Your task to perform on an android device: Open calendar and show me the first week of next month Image 0: 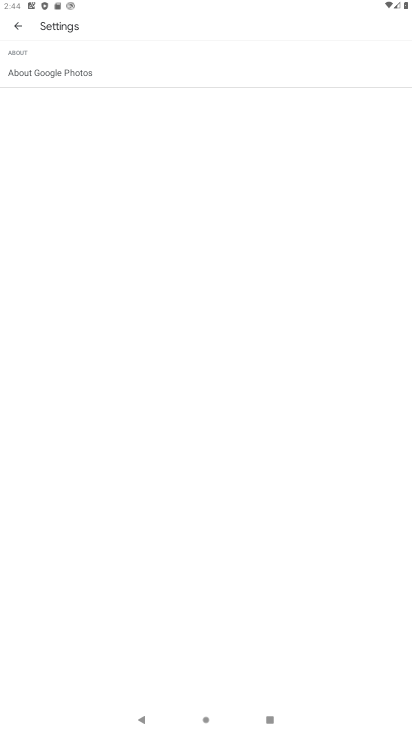
Step 0: press back button
Your task to perform on an android device: Open calendar and show me the first week of next month Image 1: 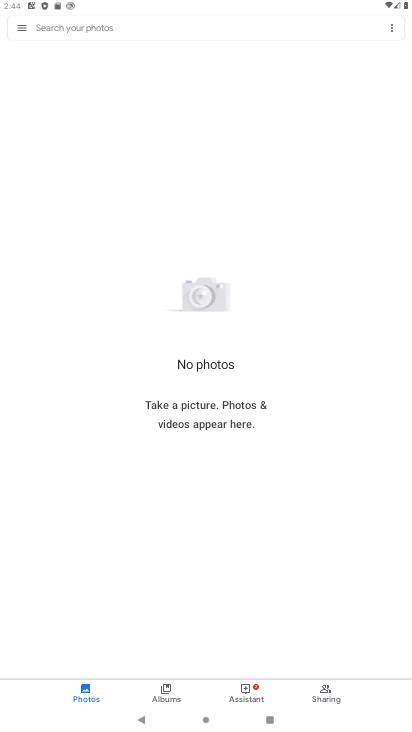
Step 1: press home button
Your task to perform on an android device: Open calendar and show me the first week of next month Image 2: 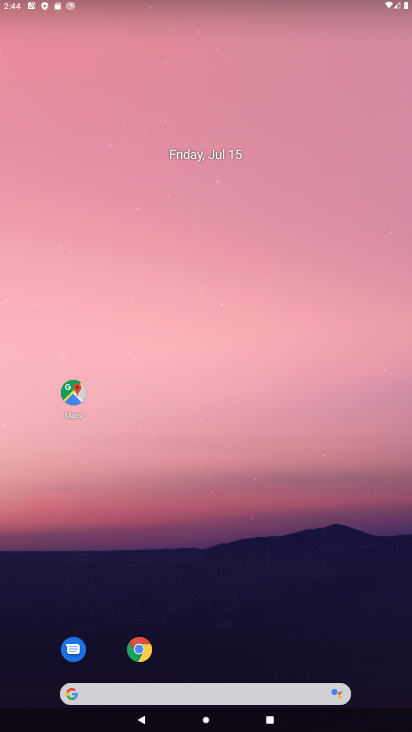
Step 2: drag from (185, 648) to (223, 157)
Your task to perform on an android device: Open calendar and show me the first week of next month Image 3: 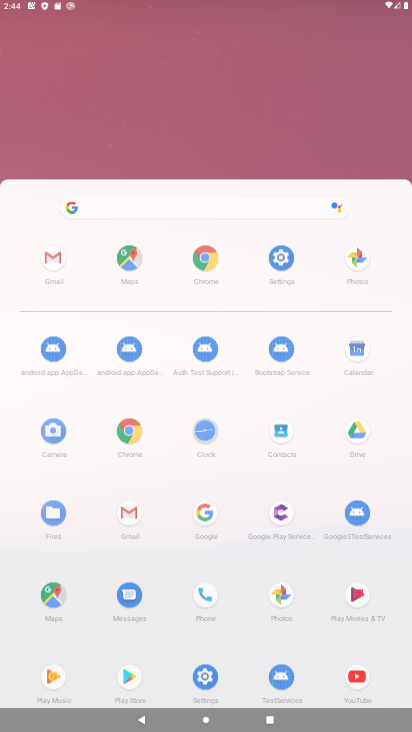
Step 3: drag from (253, 663) to (203, 268)
Your task to perform on an android device: Open calendar and show me the first week of next month Image 4: 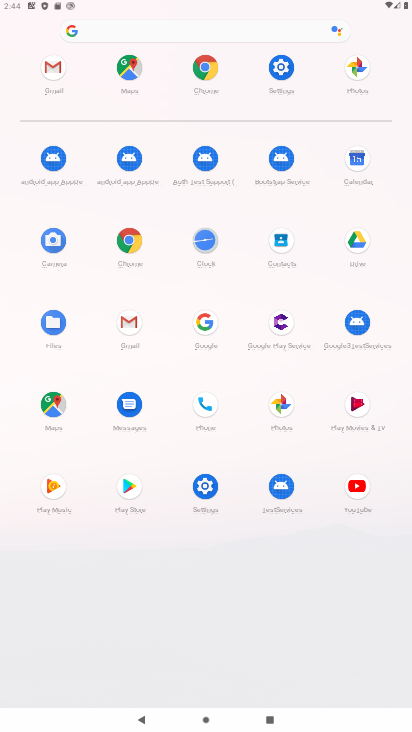
Step 4: drag from (205, 626) to (194, 251)
Your task to perform on an android device: Open calendar and show me the first week of next month Image 5: 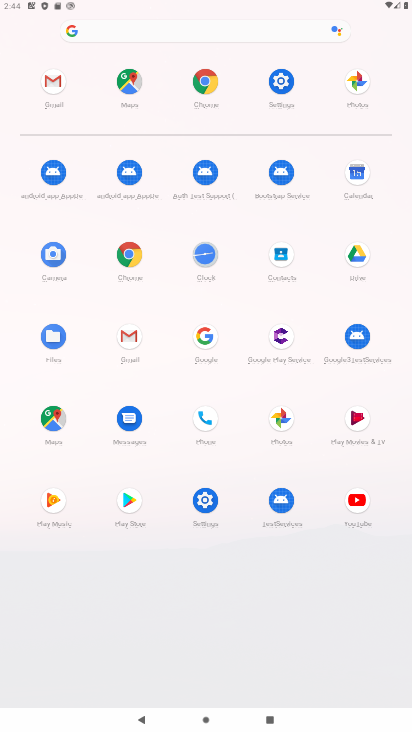
Step 5: click (353, 177)
Your task to perform on an android device: Open calendar and show me the first week of next month Image 6: 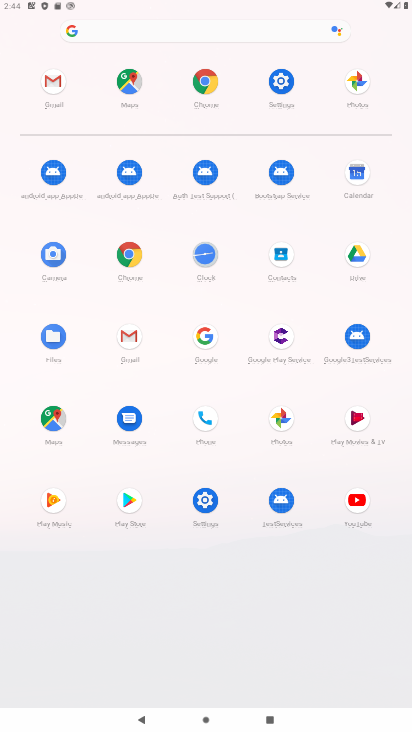
Step 6: click (354, 176)
Your task to perform on an android device: Open calendar and show me the first week of next month Image 7: 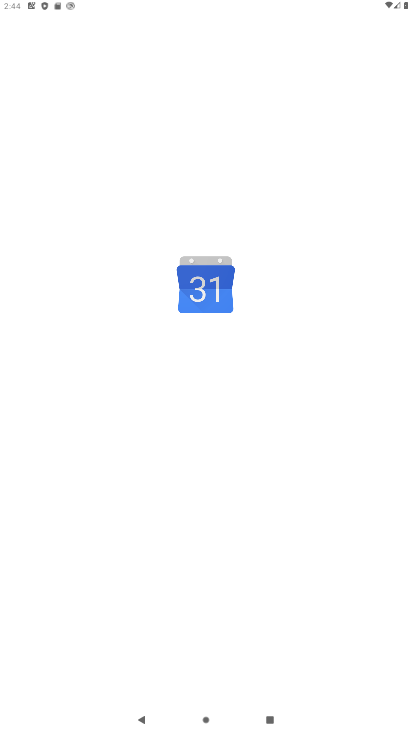
Step 7: click (354, 176)
Your task to perform on an android device: Open calendar and show me the first week of next month Image 8: 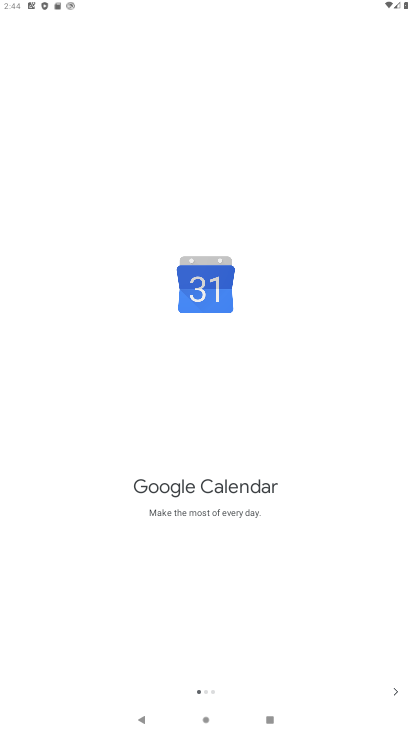
Step 8: click (384, 696)
Your task to perform on an android device: Open calendar and show me the first week of next month Image 9: 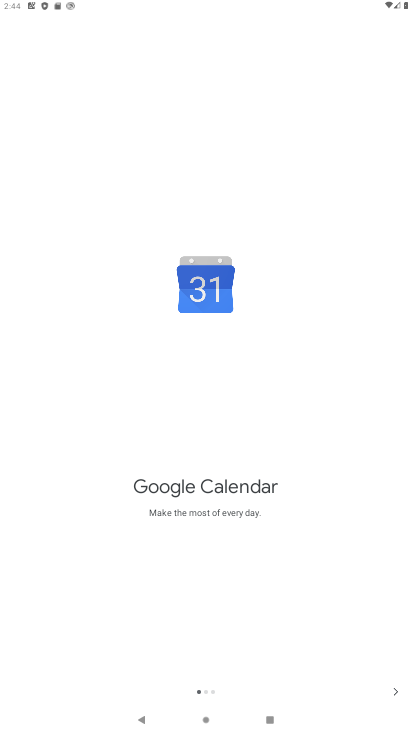
Step 9: click (384, 695)
Your task to perform on an android device: Open calendar and show me the first week of next month Image 10: 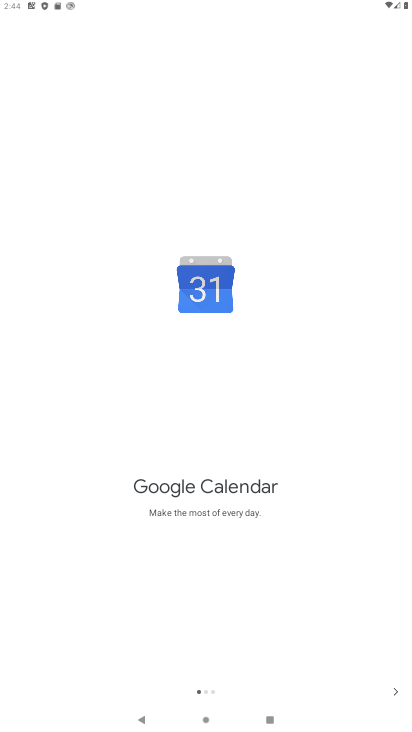
Step 10: click (384, 694)
Your task to perform on an android device: Open calendar and show me the first week of next month Image 11: 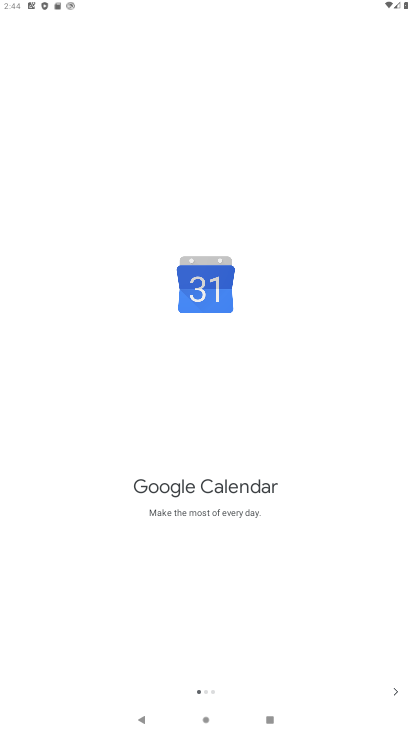
Step 11: click (384, 695)
Your task to perform on an android device: Open calendar and show me the first week of next month Image 12: 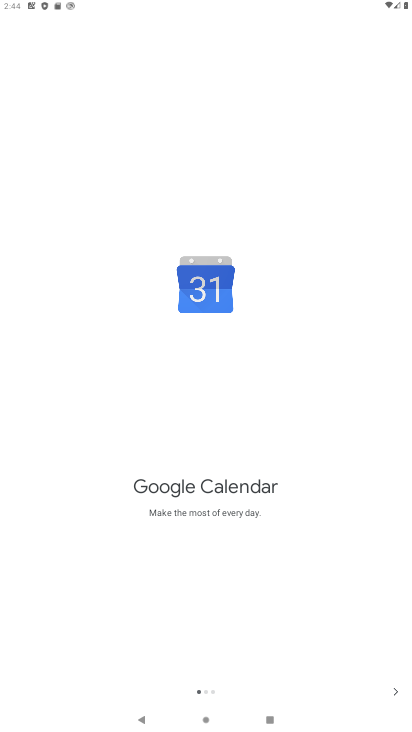
Step 12: click (384, 696)
Your task to perform on an android device: Open calendar and show me the first week of next month Image 13: 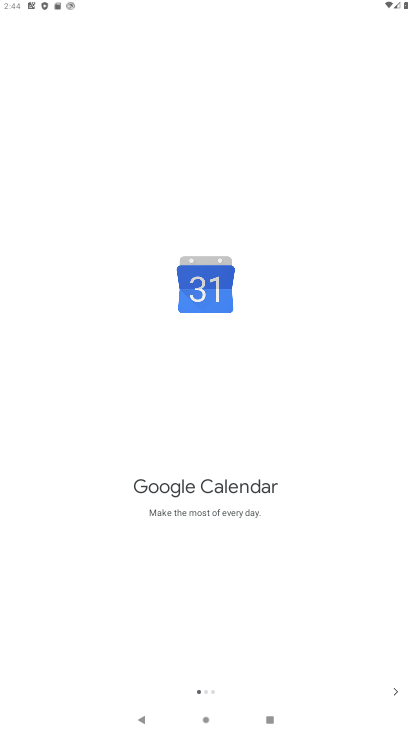
Step 13: click (384, 696)
Your task to perform on an android device: Open calendar and show me the first week of next month Image 14: 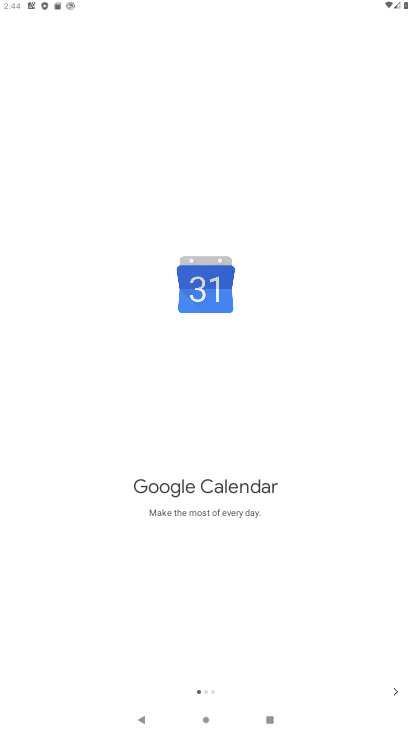
Step 14: click (384, 696)
Your task to perform on an android device: Open calendar and show me the first week of next month Image 15: 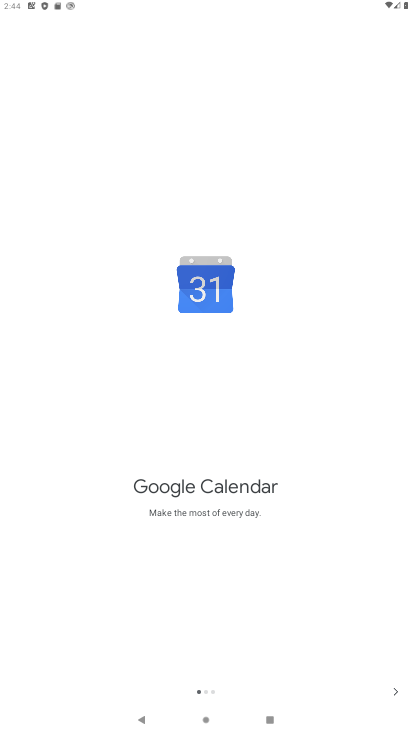
Step 15: click (391, 686)
Your task to perform on an android device: Open calendar and show me the first week of next month Image 16: 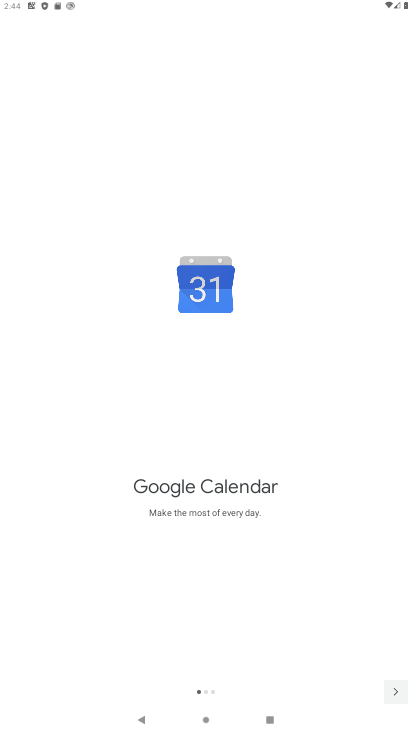
Step 16: click (391, 690)
Your task to perform on an android device: Open calendar and show me the first week of next month Image 17: 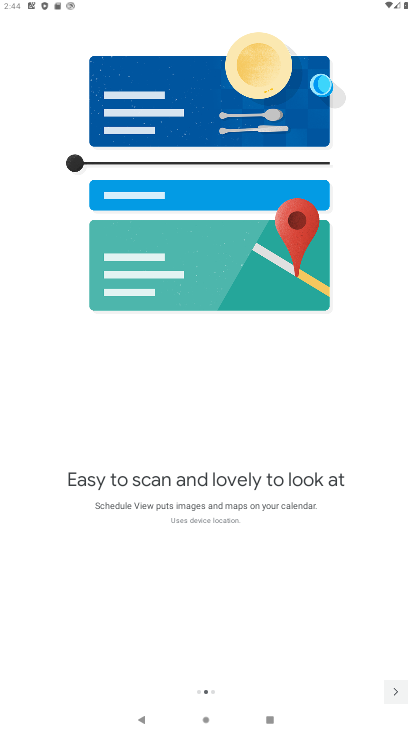
Step 17: click (393, 690)
Your task to perform on an android device: Open calendar and show me the first week of next month Image 18: 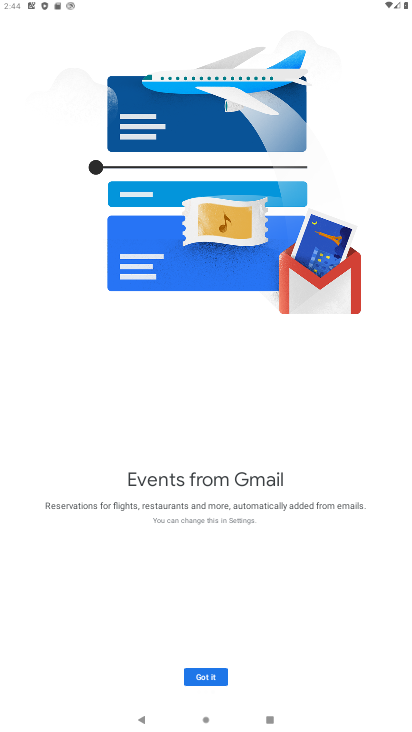
Step 18: click (393, 690)
Your task to perform on an android device: Open calendar and show me the first week of next month Image 19: 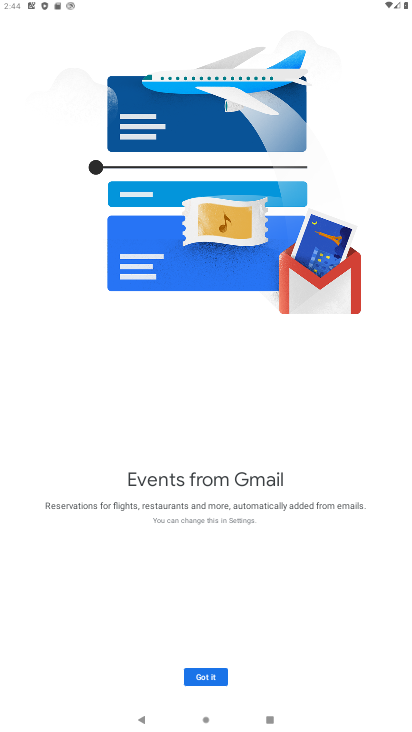
Step 19: click (393, 690)
Your task to perform on an android device: Open calendar and show me the first week of next month Image 20: 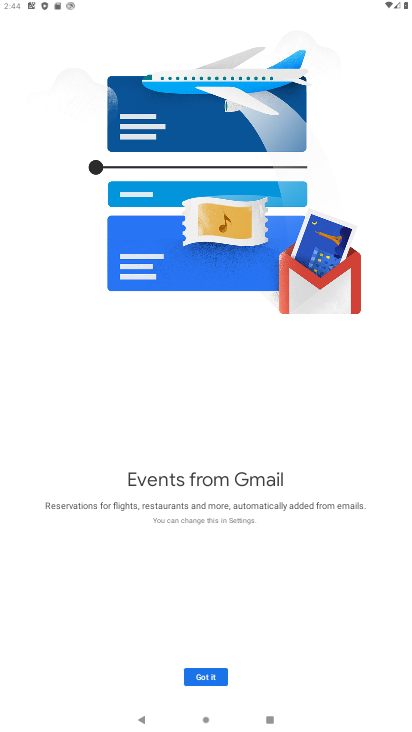
Step 20: click (393, 690)
Your task to perform on an android device: Open calendar and show me the first week of next month Image 21: 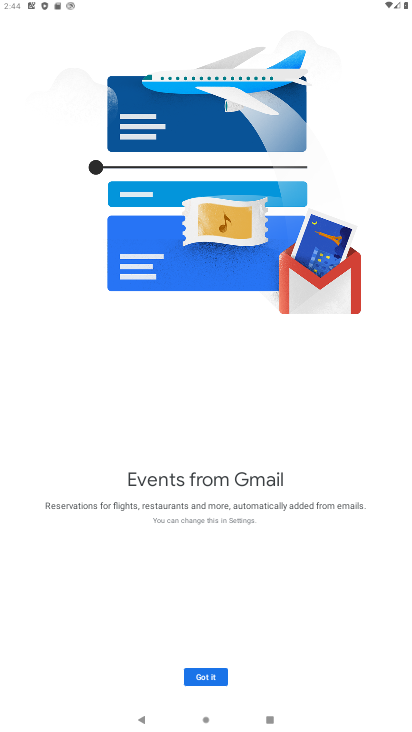
Step 21: click (393, 690)
Your task to perform on an android device: Open calendar and show me the first week of next month Image 22: 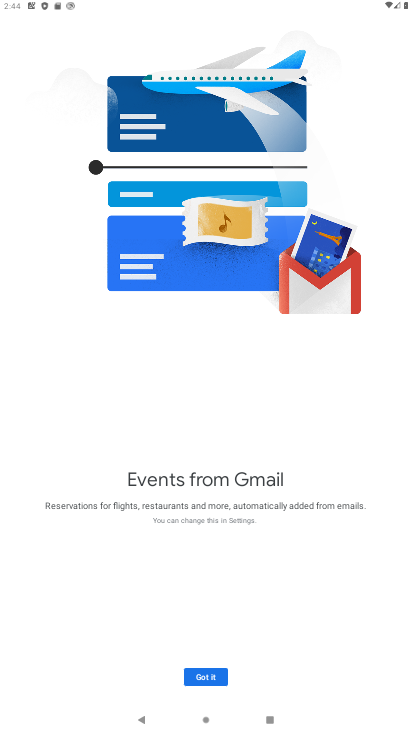
Step 22: click (393, 691)
Your task to perform on an android device: Open calendar and show me the first week of next month Image 23: 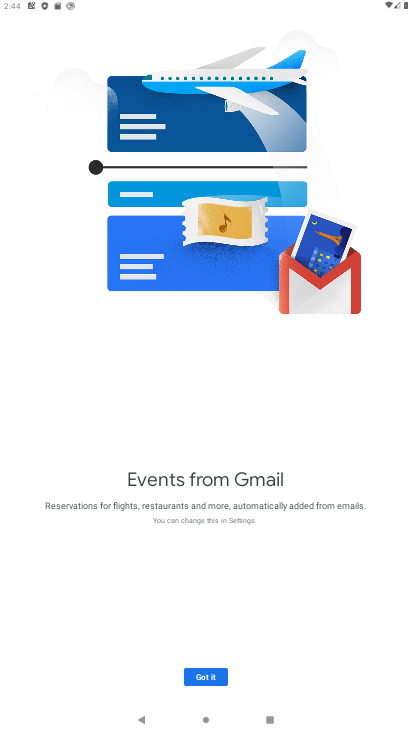
Step 23: click (393, 691)
Your task to perform on an android device: Open calendar and show me the first week of next month Image 24: 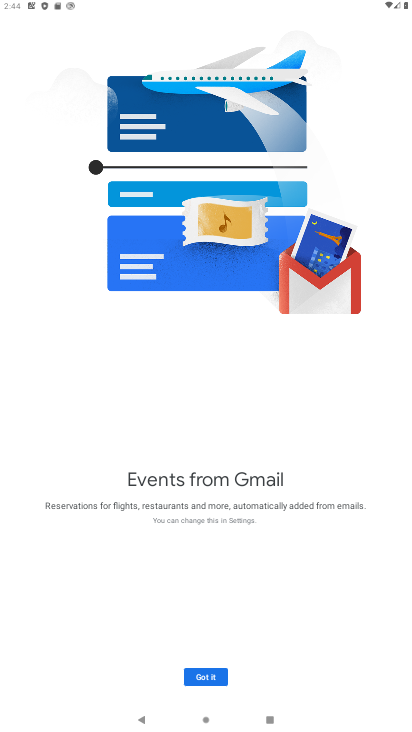
Step 24: click (210, 671)
Your task to perform on an android device: Open calendar and show me the first week of next month Image 25: 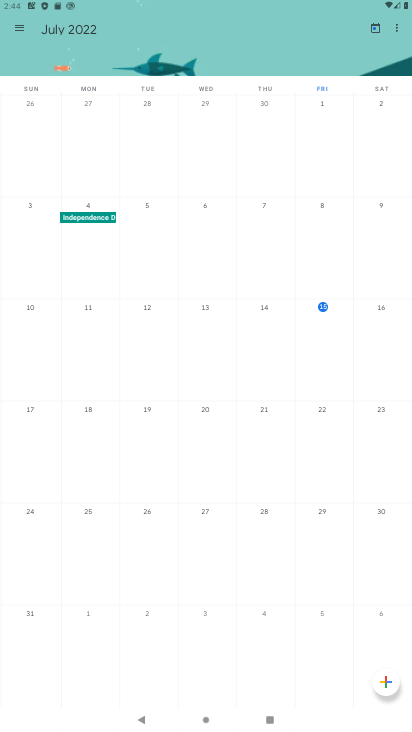
Step 25: drag from (333, 338) to (26, 317)
Your task to perform on an android device: Open calendar and show me the first week of next month Image 26: 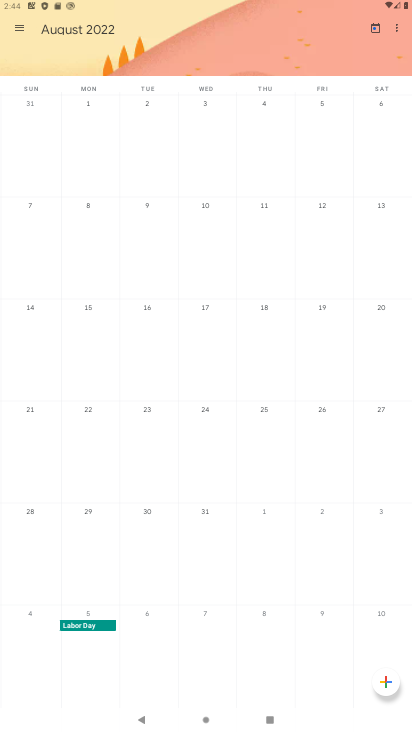
Step 26: click (200, 201)
Your task to perform on an android device: Open calendar and show me the first week of next month Image 27: 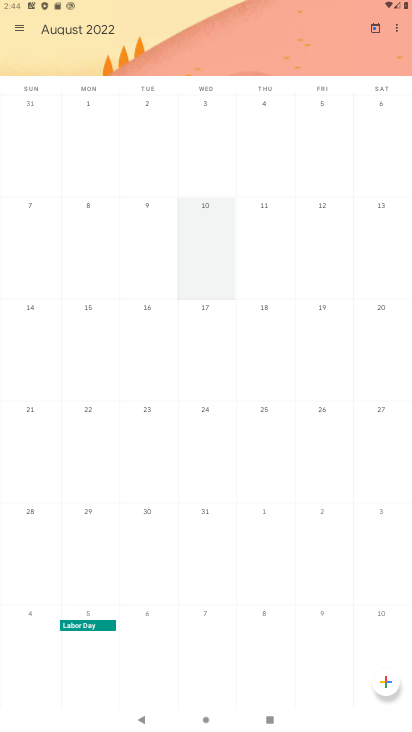
Step 27: click (200, 201)
Your task to perform on an android device: Open calendar and show me the first week of next month Image 28: 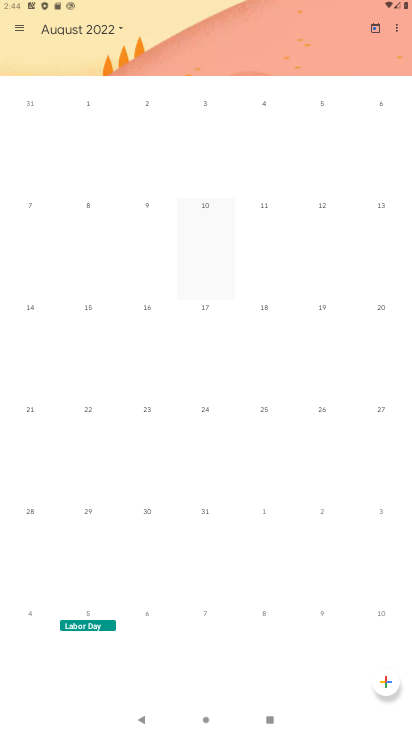
Step 28: click (200, 202)
Your task to perform on an android device: Open calendar and show me the first week of next month Image 29: 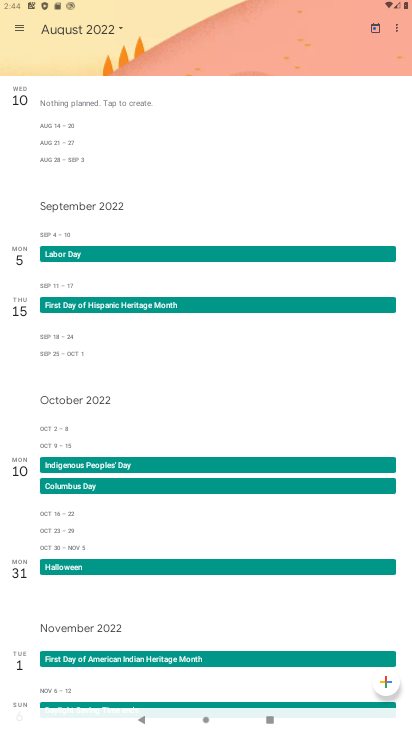
Step 29: click (200, 202)
Your task to perform on an android device: Open calendar and show me the first week of next month Image 30: 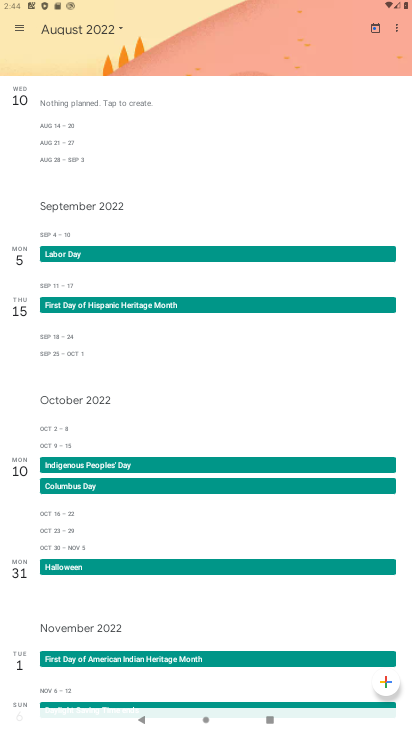
Step 30: task complete